Your task to perform on an android device: Go to sound settings Image 0: 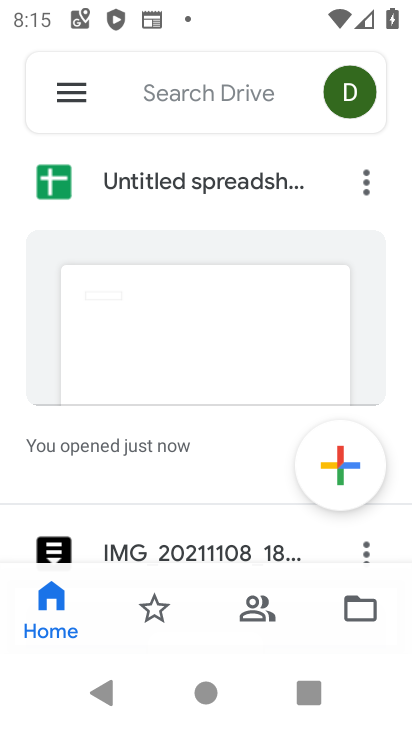
Step 0: press home button
Your task to perform on an android device: Go to sound settings Image 1: 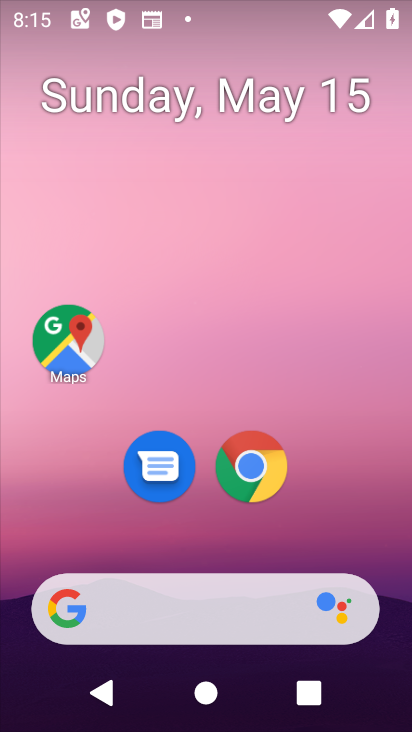
Step 1: drag from (152, 572) to (250, 33)
Your task to perform on an android device: Go to sound settings Image 2: 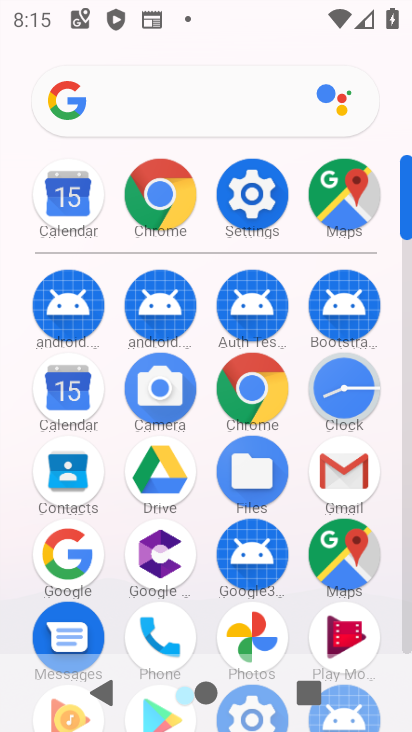
Step 2: click (269, 182)
Your task to perform on an android device: Go to sound settings Image 3: 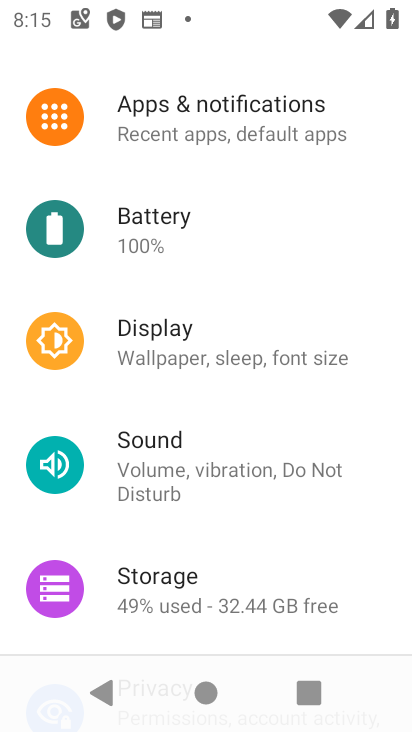
Step 3: click (163, 463)
Your task to perform on an android device: Go to sound settings Image 4: 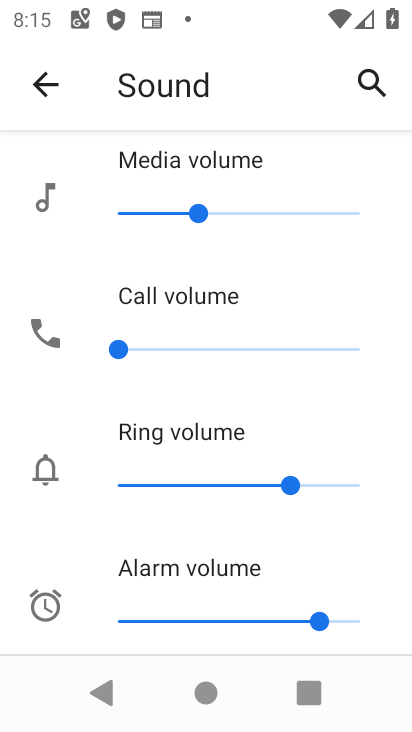
Step 4: task complete